Your task to perform on an android device: When is my next appointment? Image 0: 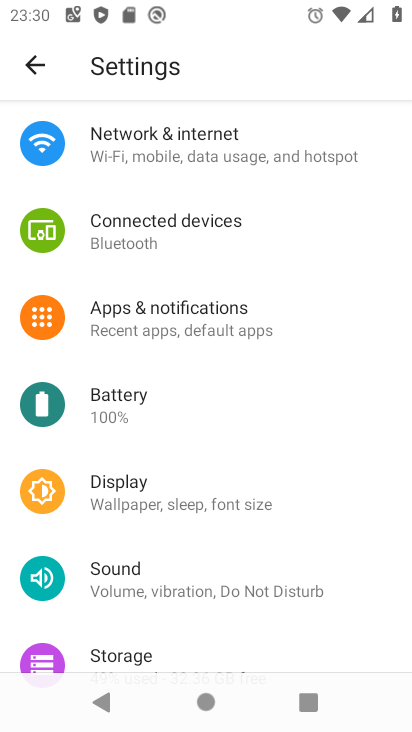
Step 0: press home button
Your task to perform on an android device: When is my next appointment? Image 1: 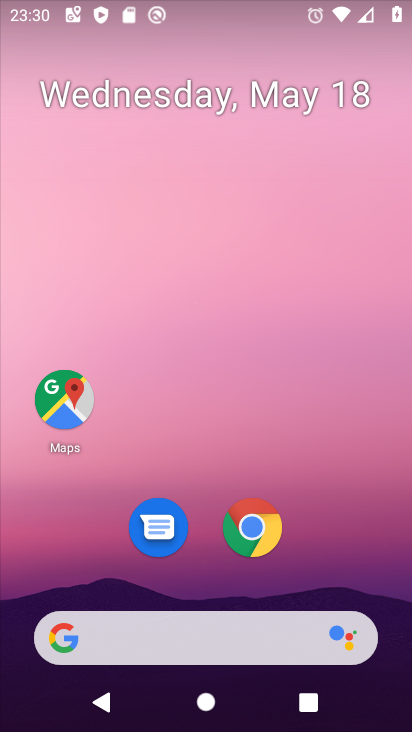
Step 1: drag from (341, 536) to (236, 207)
Your task to perform on an android device: When is my next appointment? Image 2: 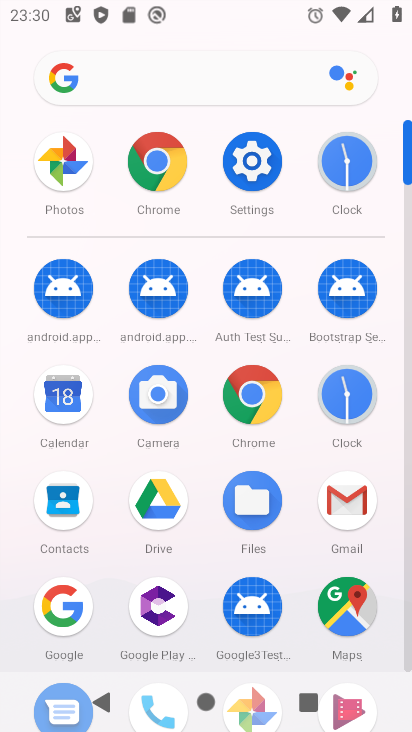
Step 2: click (60, 414)
Your task to perform on an android device: When is my next appointment? Image 3: 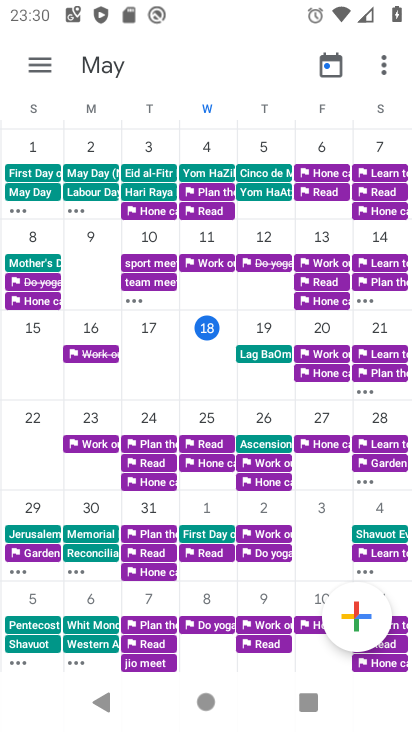
Step 3: task complete